Your task to perform on an android device: uninstall "Flipkart Online Shopping App" Image 0: 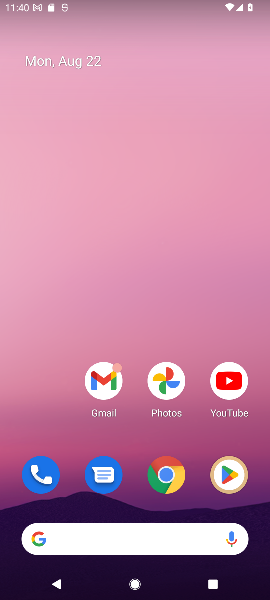
Step 0: drag from (129, 410) to (138, 61)
Your task to perform on an android device: uninstall "Flipkart Online Shopping App" Image 1: 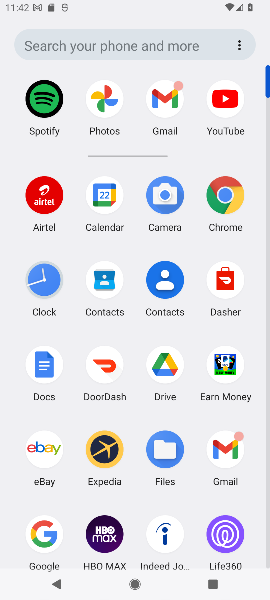
Step 1: drag from (174, 505) to (160, 239)
Your task to perform on an android device: uninstall "Flipkart Online Shopping App" Image 2: 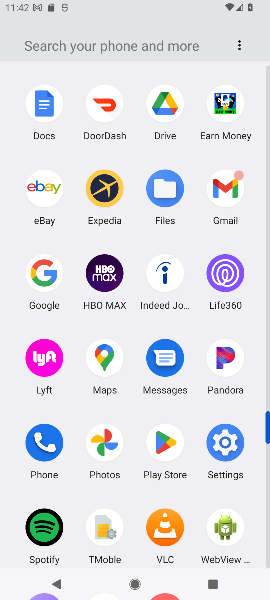
Step 2: click (163, 437)
Your task to perform on an android device: uninstall "Flipkart Online Shopping App" Image 3: 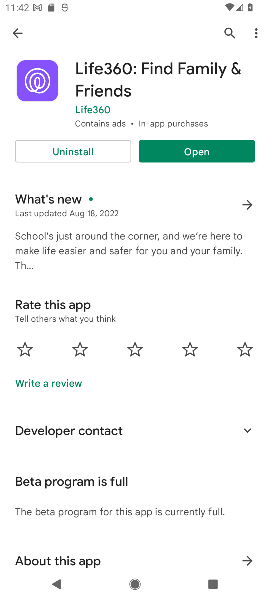
Step 3: click (23, 33)
Your task to perform on an android device: uninstall "Flipkart Online Shopping App" Image 4: 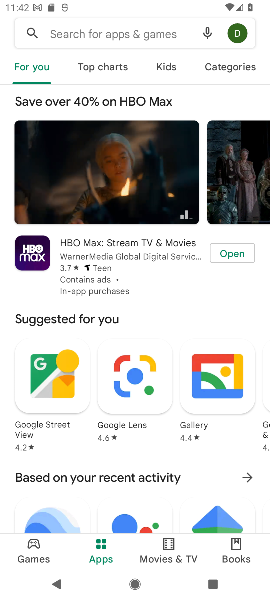
Step 4: click (124, 26)
Your task to perform on an android device: uninstall "Flipkart Online Shopping App" Image 5: 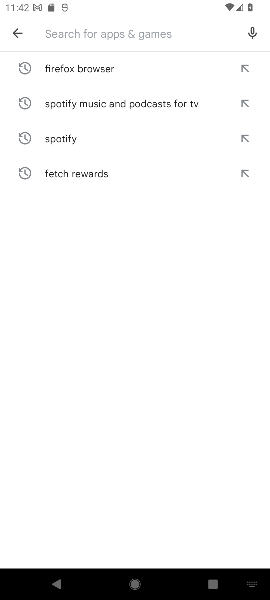
Step 5: type "Flipkart Online Shopping App"
Your task to perform on an android device: uninstall "Flipkart Online Shopping App" Image 6: 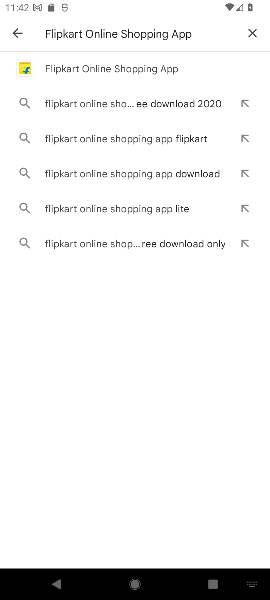
Step 6: click (153, 62)
Your task to perform on an android device: uninstall "Flipkart Online Shopping App" Image 7: 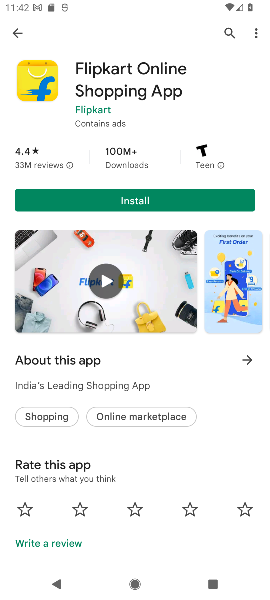
Step 7: task complete